Your task to perform on an android device: Go to Wikipedia Image 0: 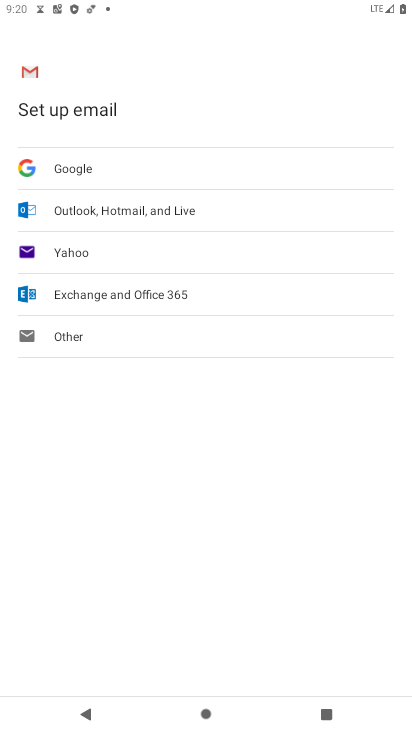
Step 0: press home button
Your task to perform on an android device: Go to Wikipedia Image 1: 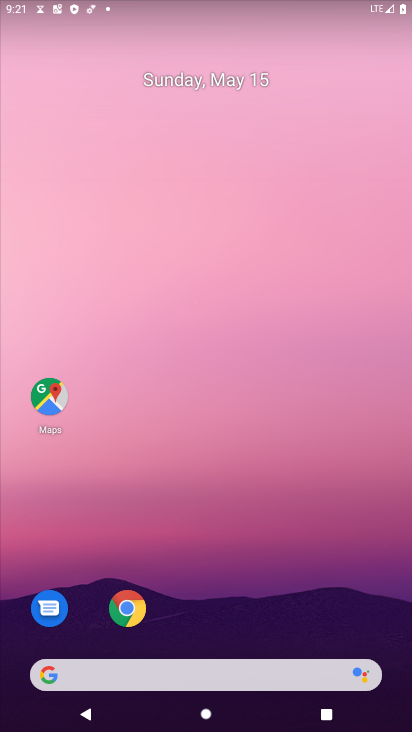
Step 1: drag from (309, 562) to (241, 109)
Your task to perform on an android device: Go to Wikipedia Image 2: 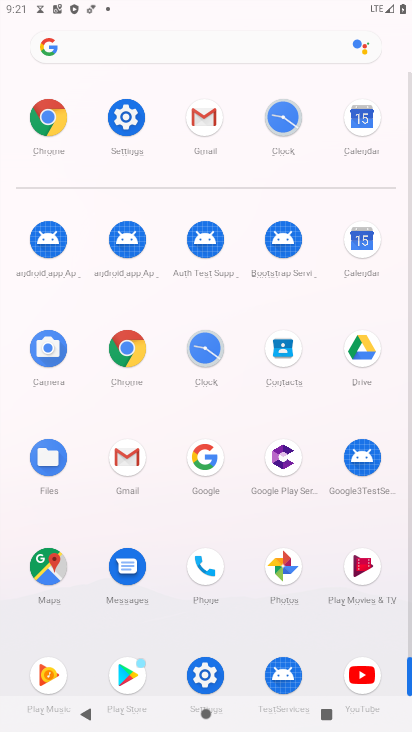
Step 2: click (35, 123)
Your task to perform on an android device: Go to Wikipedia Image 3: 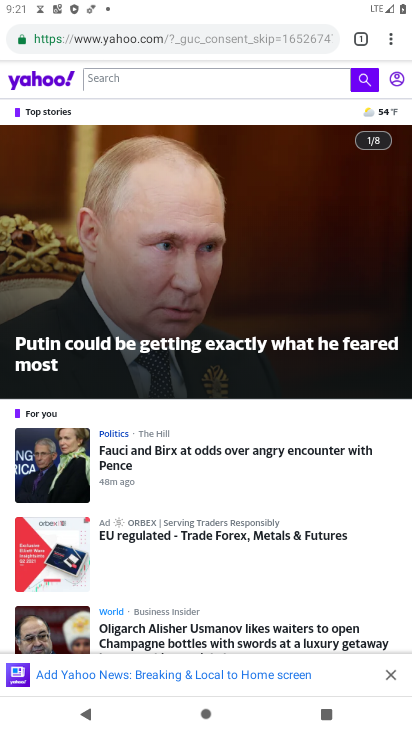
Step 3: click (296, 28)
Your task to perform on an android device: Go to Wikipedia Image 4: 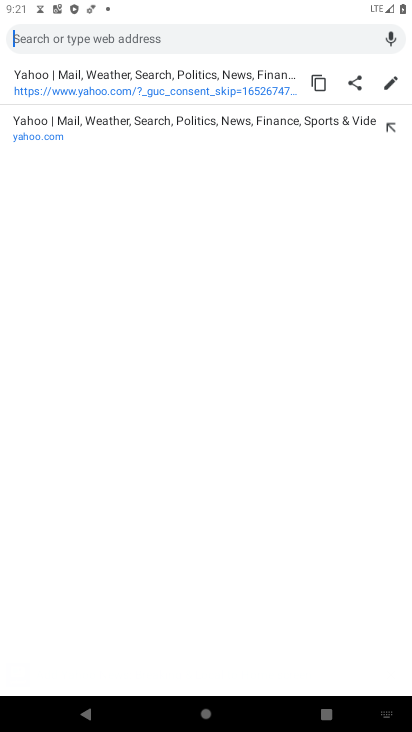
Step 4: type "wikipedia"
Your task to perform on an android device: Go to Wikipedia Image 5: 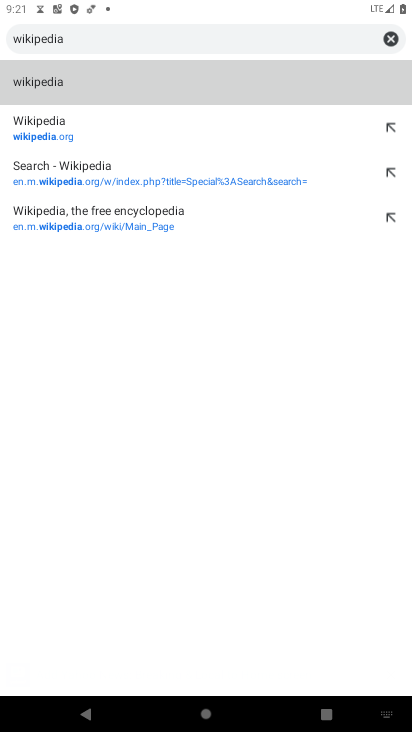
Step 5: click (65, 84)
Your task to perform on an android device: Go to Wikipedia Image 6: 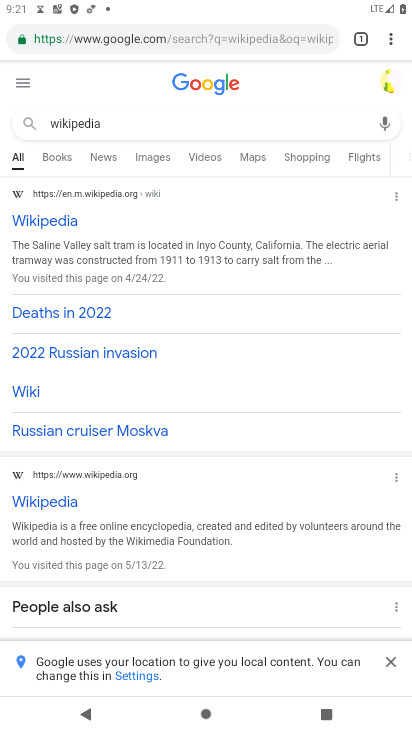
Step 6: click (55, 216)
Your task to perform on an android device: Go to Wikipedia Image 7: 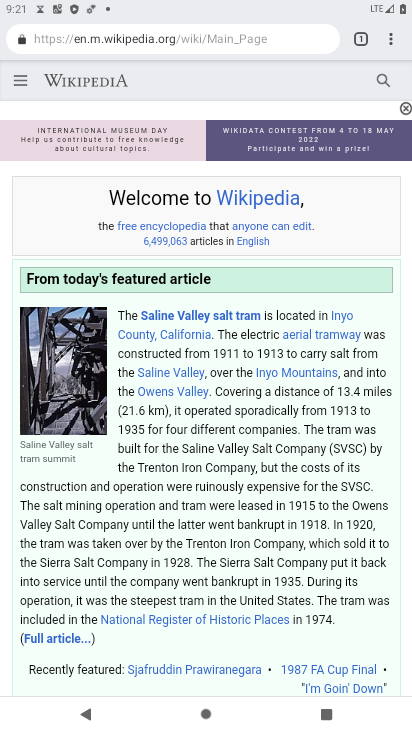
Step 7: task complete